Your task to perform on an android device: turn on javascript in the chrome app Image 0: 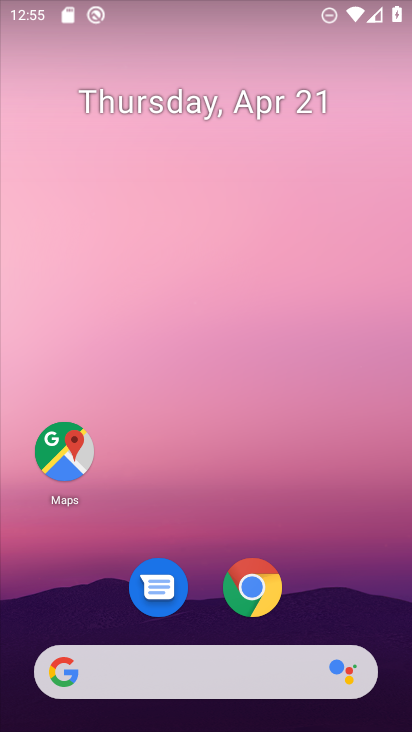
Step 0: drag from (323, 489) to (319, 111)
Your task to perform on an android device: turn on javascript in the chrome app Image 1: 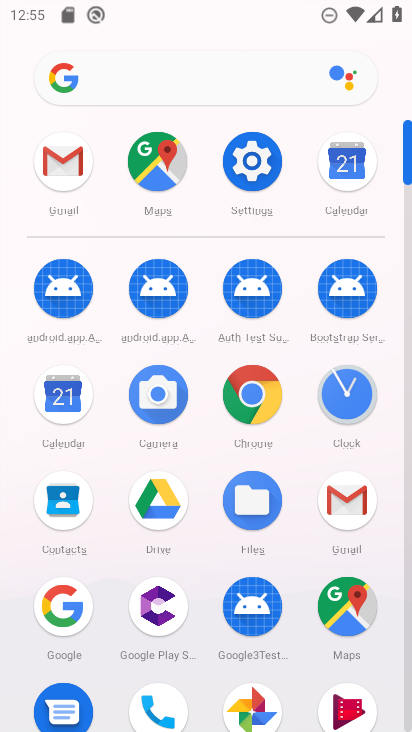
Step 1: click (252, 386)
Your task to perform on an android device: turn on javascript in the chrome app Image 2: 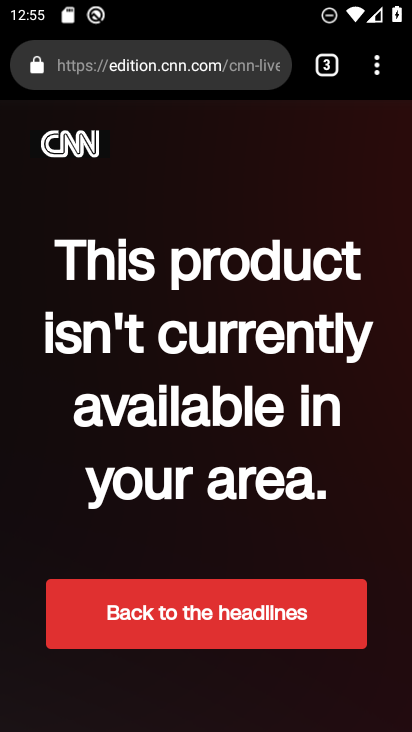
Step 2: click (372, 67)
Your task to perform on an android device: turn on javascript in the chrome app Image 3: 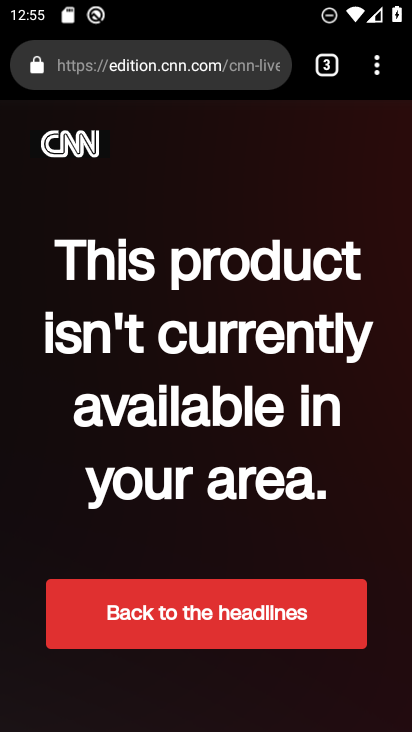
Step 3: click (376, 73)
Your task to perform on an android device: turn on javascript in the chrome app Image 4: 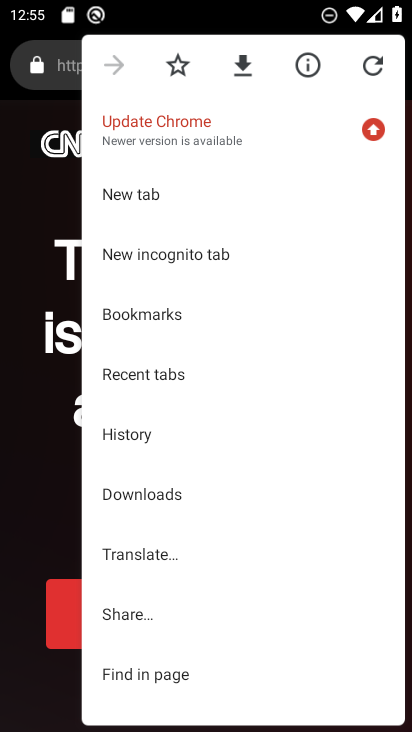
Step 4: drag from (248, 573) to (234, 154)
Your task to perform on an android device: turn on javascript in the chrome app Image 5: 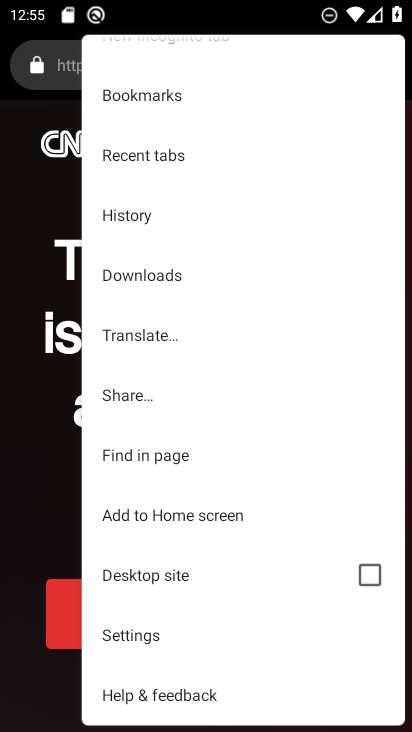
Step 5: click (141, 632)
Your task to perform on an android device: turn on javascript in the chrome app Image 6: 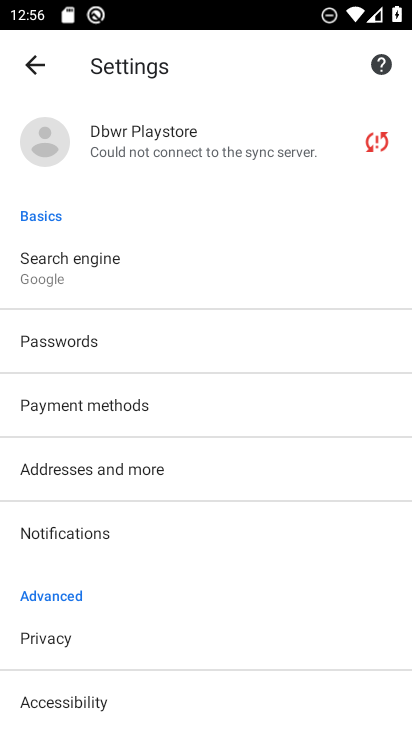
Step 6: drag from (208, 575) to (194, 229)
Your task to perform on an android device: turn on javascript in the chrome app Image 7: 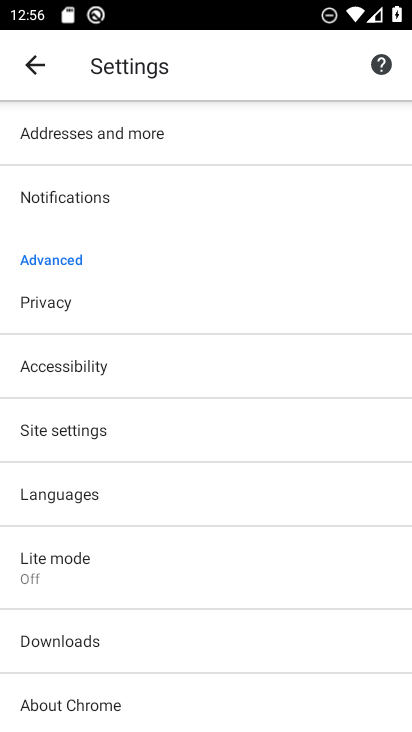
Step 7: click (71, 433)
Your task to perform on an android device: turn on javascript in the chrome app Image 8: 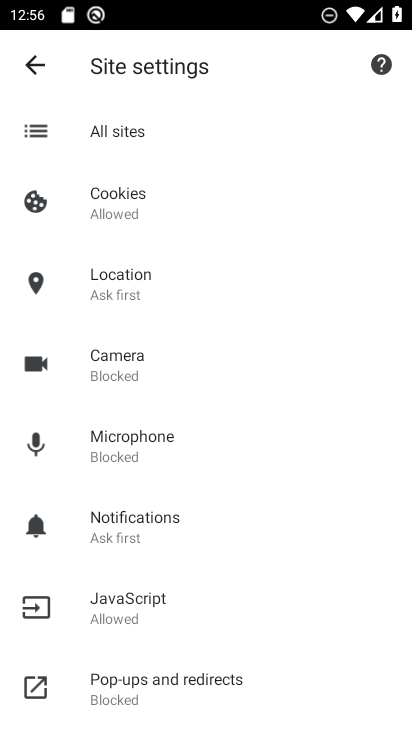
Step 8: click (135, 598)
Your task to perform on an android device: turn on javascript in the chrome app Image 9: 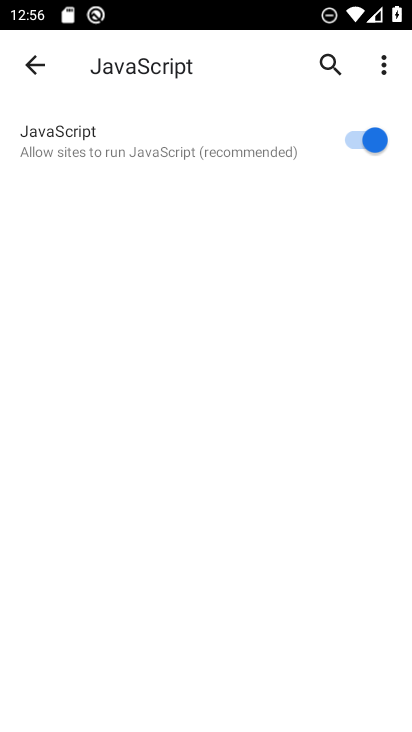
Step 9: task complete